Your task to perform on an android device: delete browsing data in the chrome app Image 0: 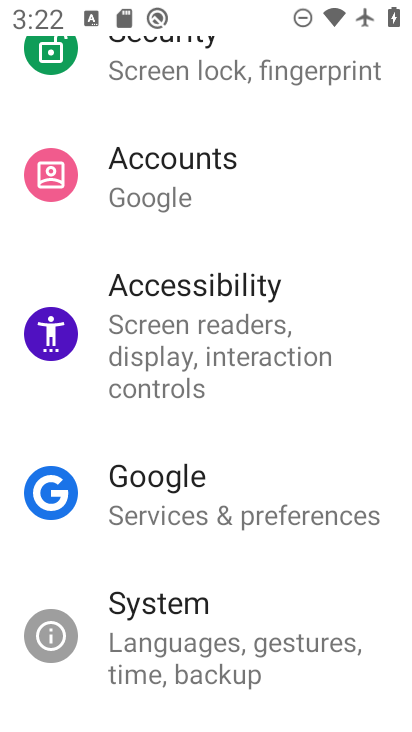
Step 0: press home button
Your task to perform on an android device: delete browsing data in the chrome app Image 1: 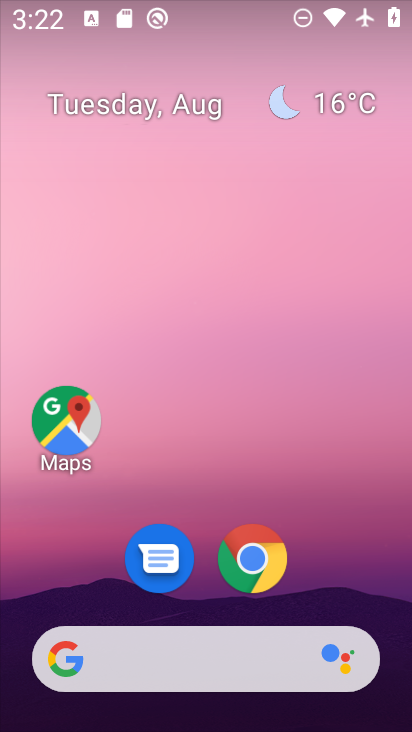
Step 1: click (245, 573)
Your task to perform on an android device: delete browsing data in the chrome app Image 2: 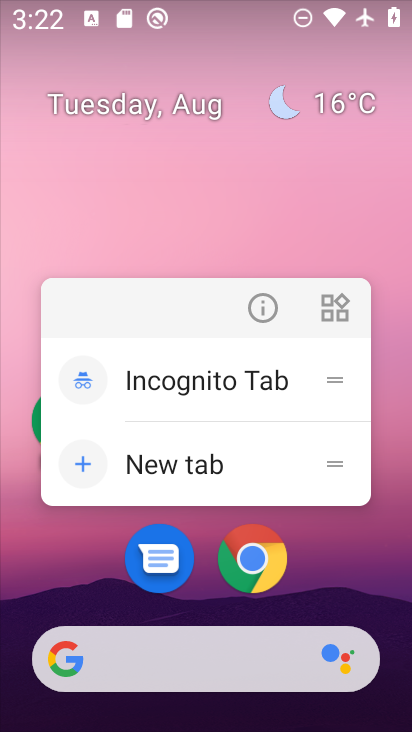
Step 2: click (245, 573)
Your task to perform on an android device: delete browsing data in the chrome app Image 3: 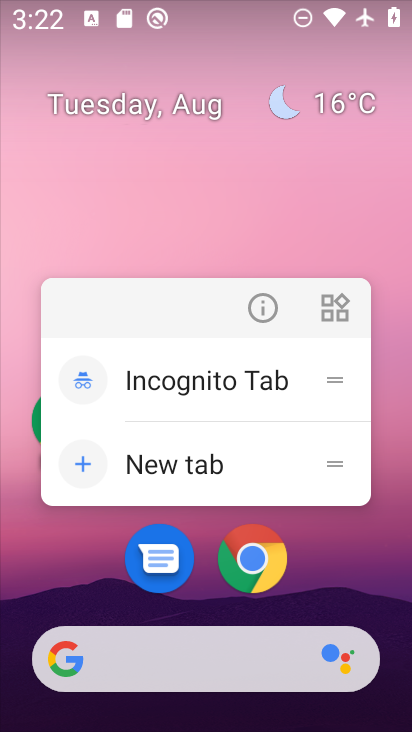
Step 3: click (249, 569)
Your task to perform on an android device: delete browsing data in the chrome app Image 4: 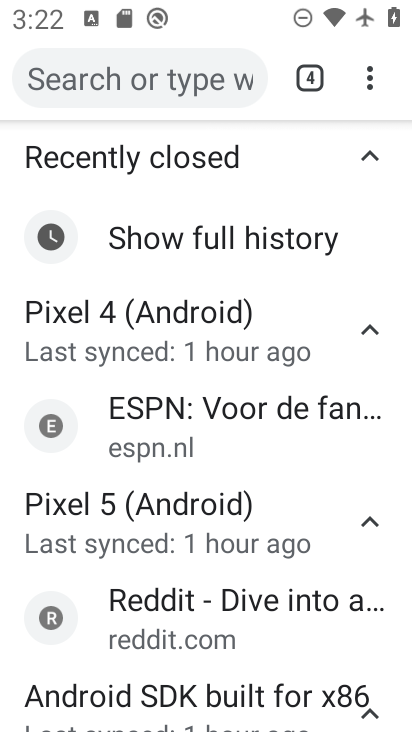
Step 4: click (363, 77)
Your task to perform on an android device: delete browsing data in the chrome app Image 5: 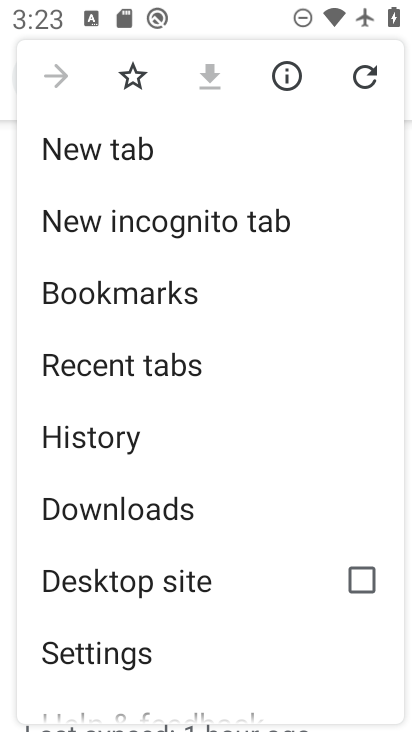
Step 5: click (102, 429)
Your task to perform on an android device: delete browsing data in the chrome app Image 6: 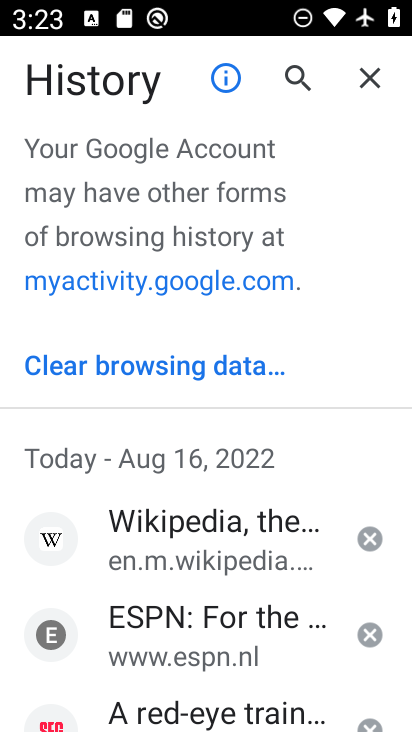
Step 6: click (144, 355)
Your task to perform on an android device: delete browsing data in the chrome app Image 7: 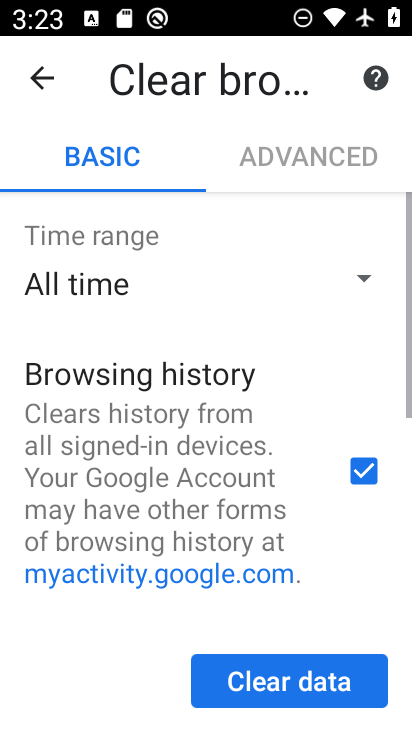
Step 7: drag from (273, 568) to (294, 190)
Your task to perform on an android device: delete browsing data in the chrome app Image 8: 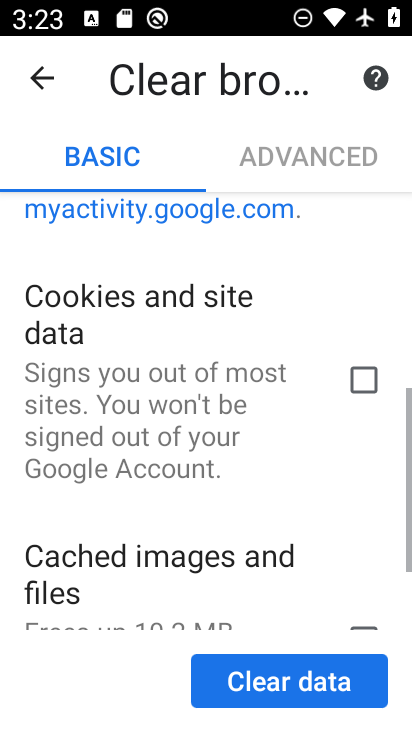
Step 8: drag from (266, 264) to (273, 215)
Your task to perform on an android device: delete browsing data in the chrome app Image 9: 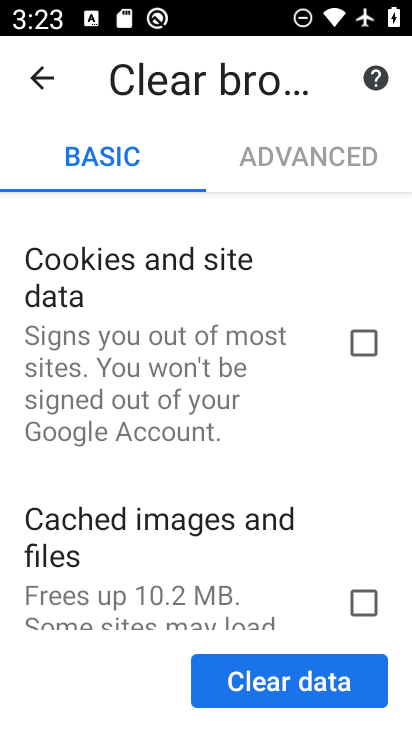
Step 9: click (361, 333)
Your task to perform on an android device: delete browsing data in the chrome app Image 10: 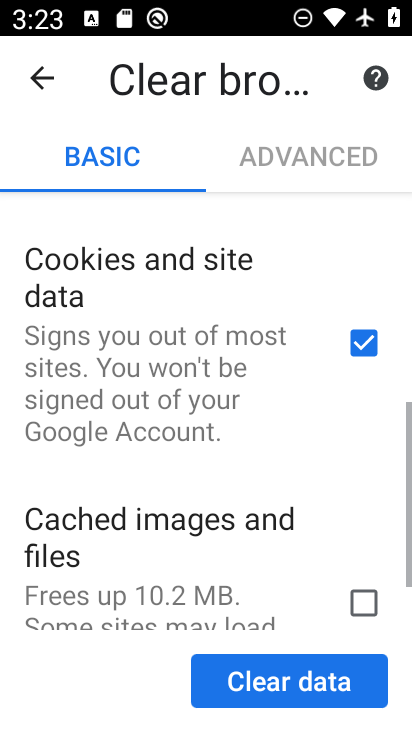
Step 10: click (361, 611)
Your task to perform on an android device: delete browsing data in the chrome app Image 11: 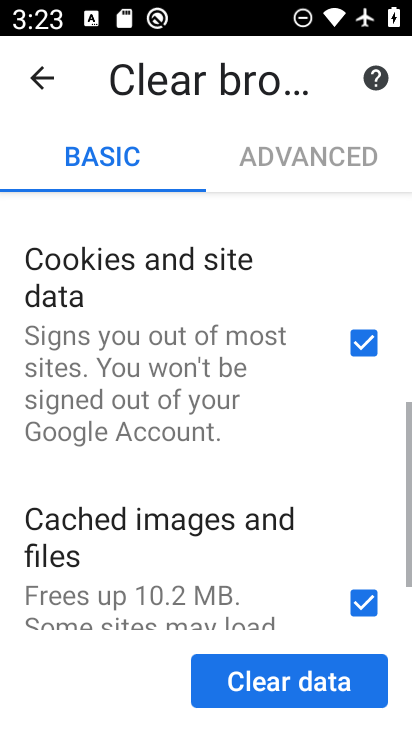
Step 11: click (307, 684)
Your task to perform on an android device: delete browsing data in the chrome app Image 12: 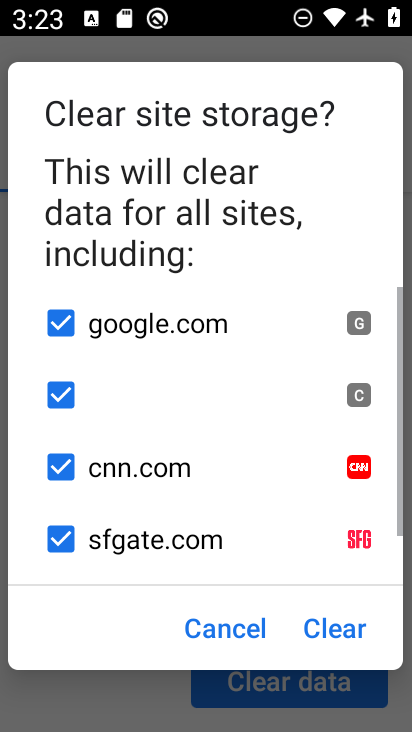
Step 12: click (309, 635)
Your task to perform on an android device: delete browsing data in the chrome app Image 13: 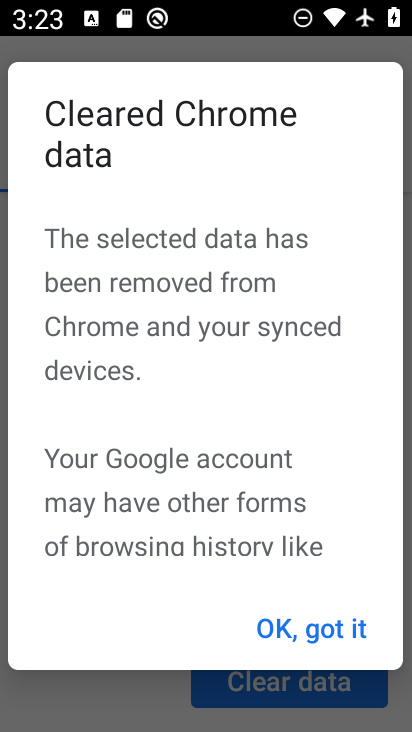
Step 13: task complete